Your task to perform on an android device: change notification settings in the gmail app Image 0: 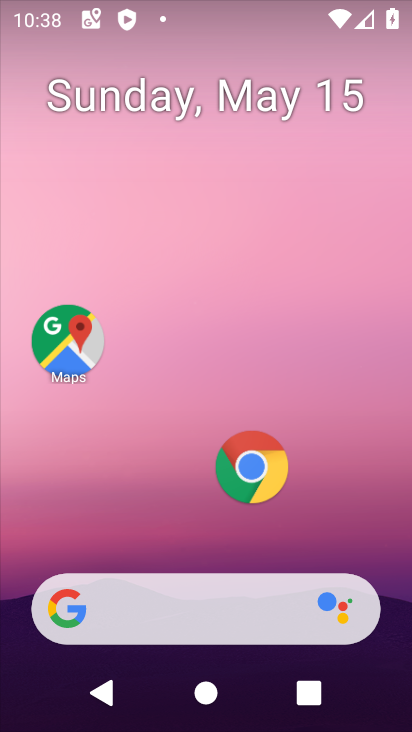
Step 0: drag from (205, 542) to (236, 60)
Your task to perform on an android device: change notification settings in the gmail app Image 1: 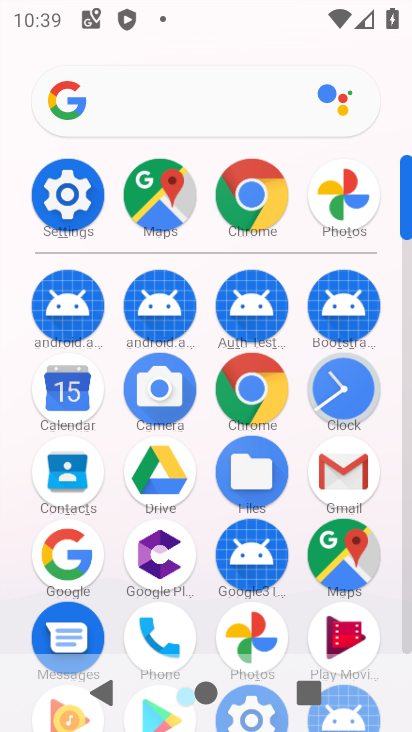
Step 1: click (343, 463)
Your task to perform on an android device: change notification settings in the gmail app Image 2: 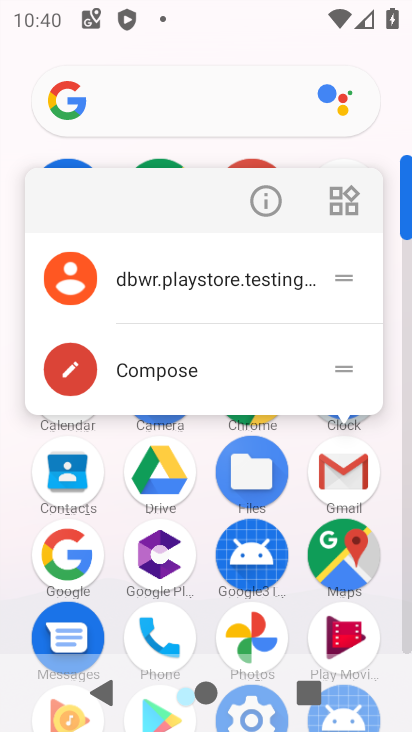
Step 2: click (223, 274)
Your task to perform on an android device: change notification settings in the gmail app Image 3: 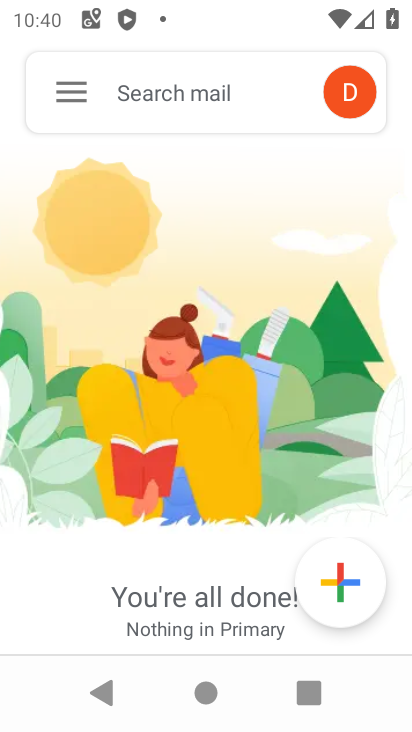
Step 3: click (166, 282)
Your task to perform on an android device: change notification settings in the gmail app Image 4: 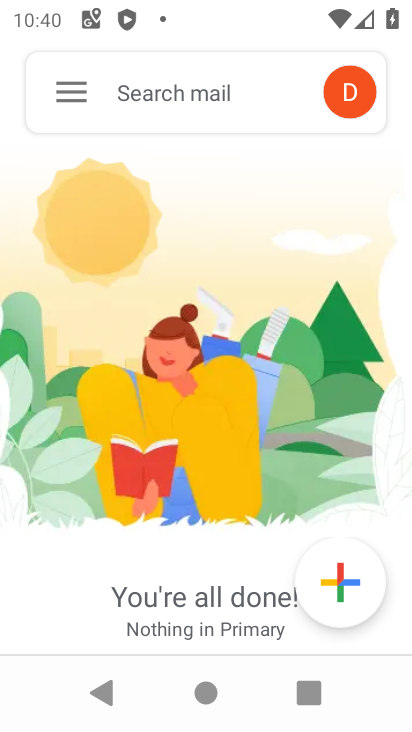
Step 4: drag from (213, 554) to (247, 305)
Your task to perform on an android device: change notification settings in the gmail app Image 5: 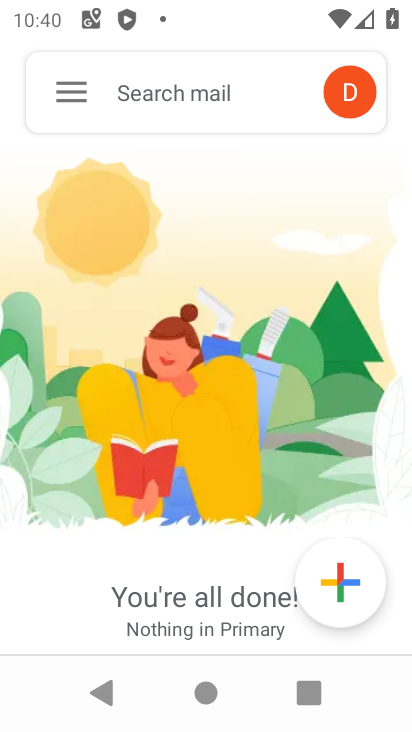
Step 5: click (68, 99)
Your task to perform on an android device: change notification settings in the gmail app Image 6: 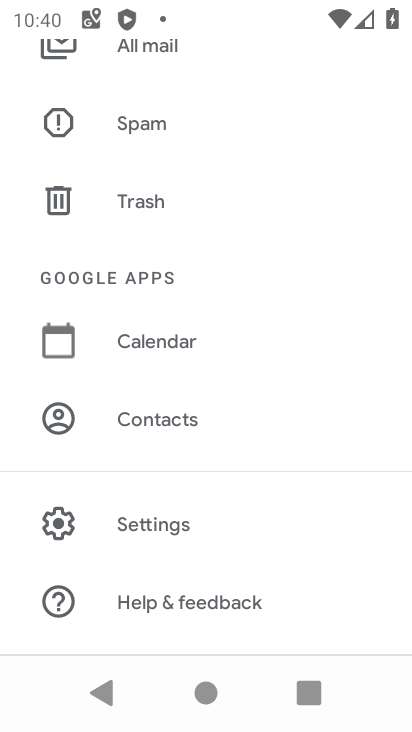
Step 6: click (164, 528)
Your task to perform on an android device: change notification settings in the gmail app Image 7: 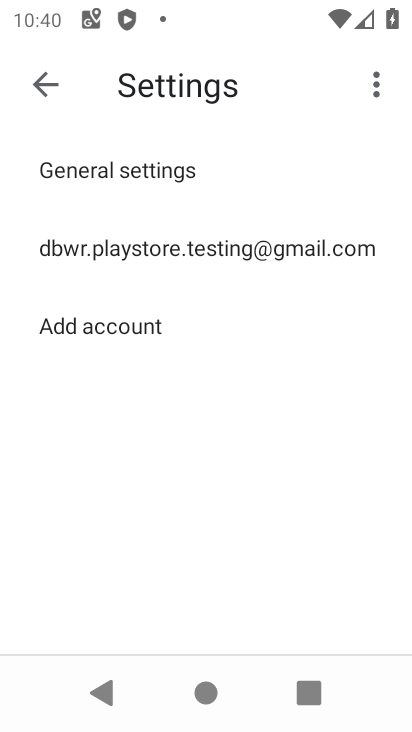
Step 7: drag from (228, 526) to (247, 63)
Your task to perform on an android device: change notification settings in the gmail app Image 8: 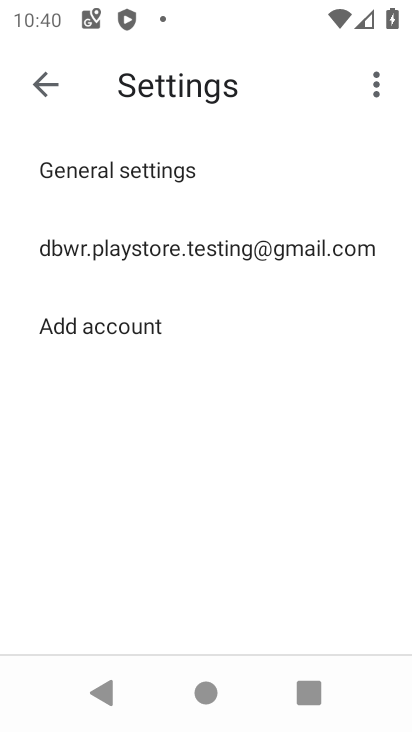
Step 8: click (174, 237)
Your task to perform on an android device: change notification settings in the gmail app Image 9: 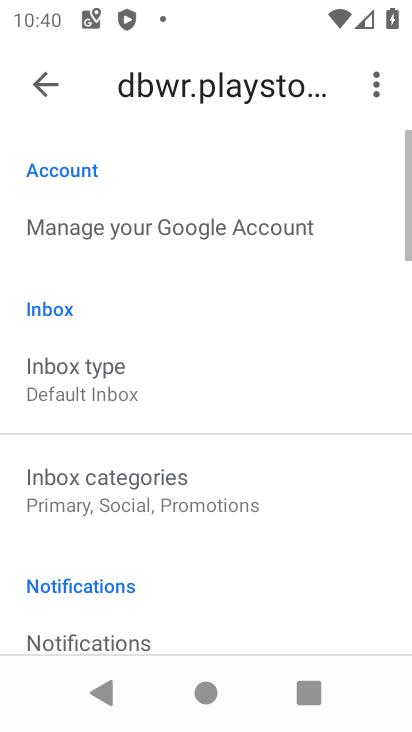
Step 9: drag from (248, 623) to (188, 149)
Your task to perform on an android device: change notification settings in the gmail app Image 10: 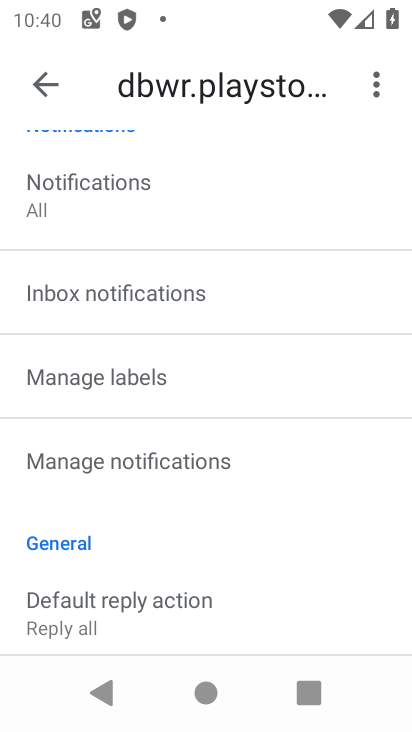
Step 10: click (184, 483)
Your task to perform on an android device: change notification settings in the gmail app Image 11: 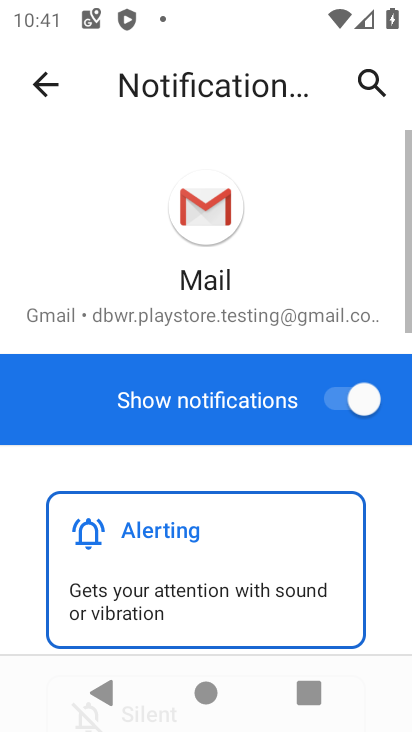
Step 11: click (328, 415)
Your task to perform on an android device: change notification settings in the gmail app Image 12: 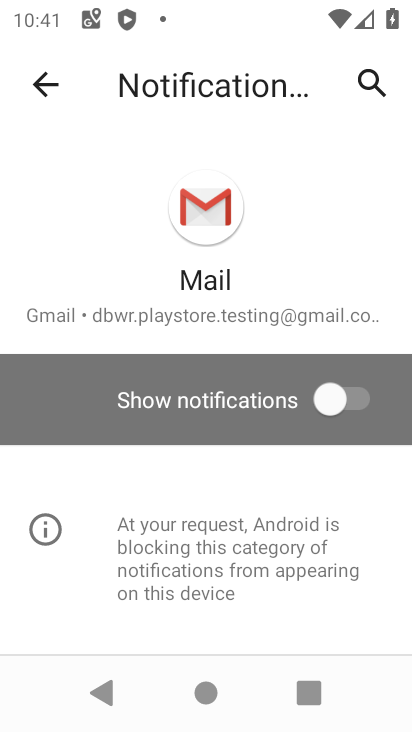
Step 12: task complete